Your task to perform on an android device: star an email in the gmail app Image 0: 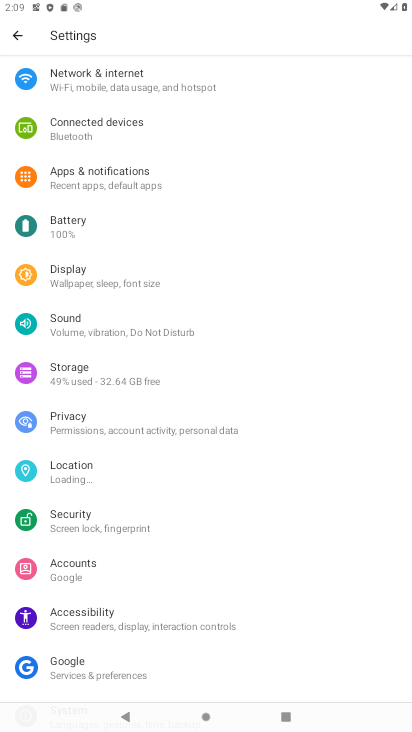
Step 0: press home button
Your task to perform on an android device: star an email in the gmail app Image 1: 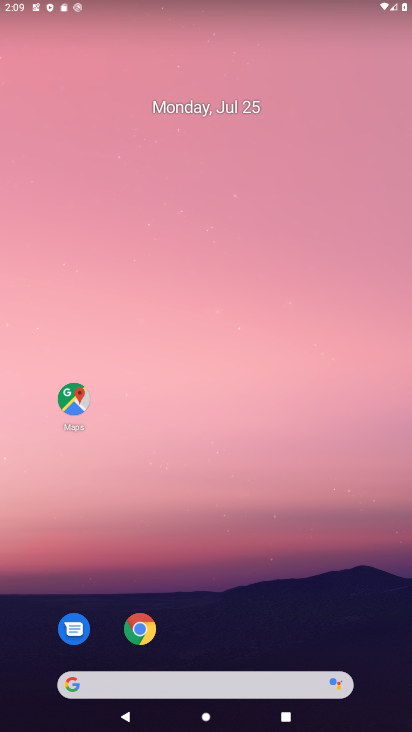
Step 1: drag from (70, 662) to (205, 201)
Your task to perform on an android device: star an email in the gmail app Image 2: 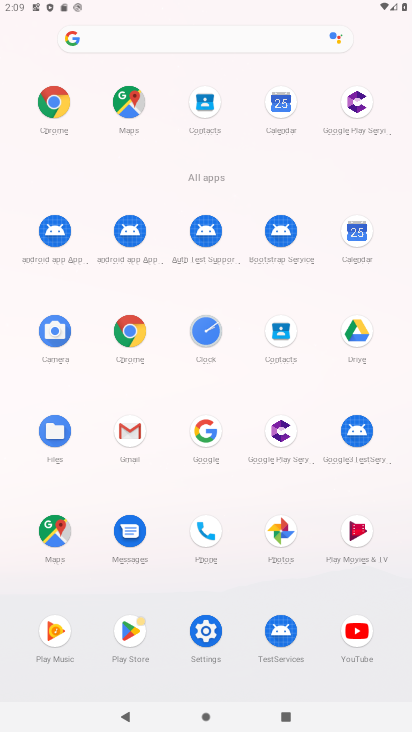
Step 2: click (126, 444)
Your task to perform on an android device: star an email in the gmail app Image 3: 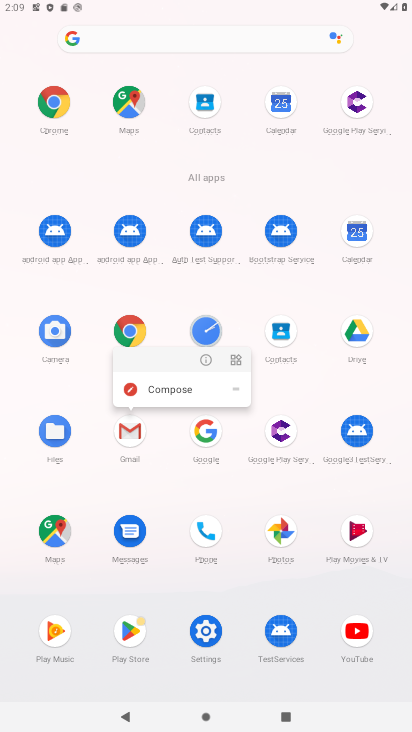
Step 3: click (131, 434)
Your task to perform on an android device: star an email in the gmail app Image 4: 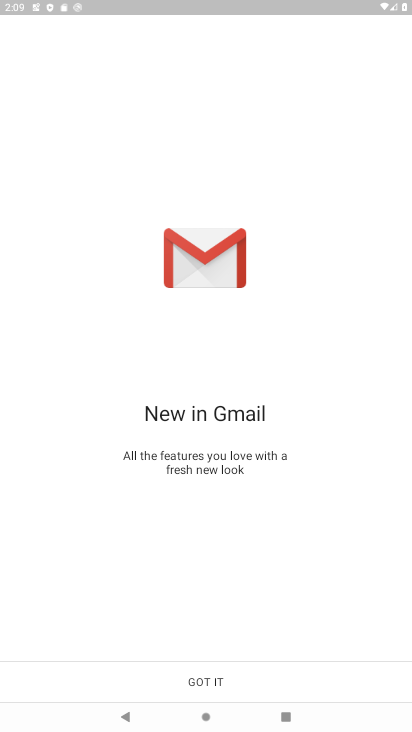
Step 4: click (200, 674)
Your task to perform on an android device: star an email in the gmail app Image 5: 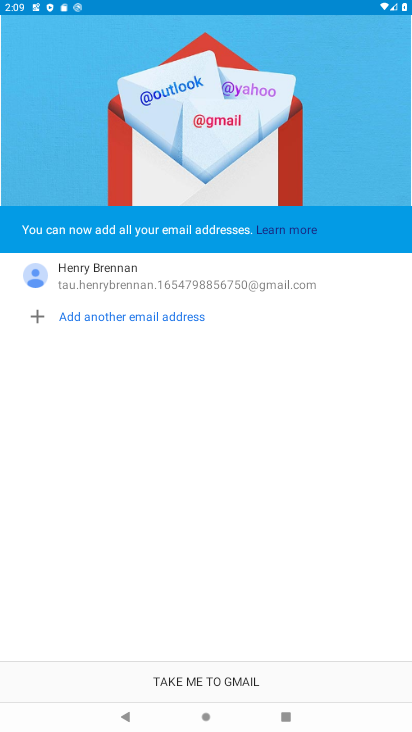
Step 5: click (208, 681)
Your task to perform on an android device: star an email in the gmail app Image 6: 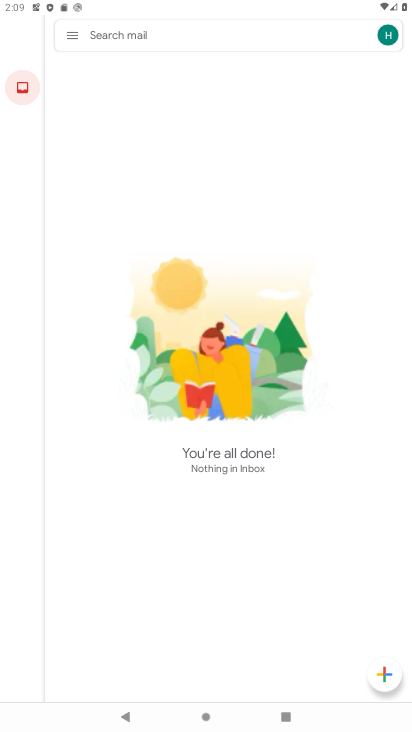
Step 6: click (66, 39)
Your task to perform on an android device: star an email in the gmail app Image 7: 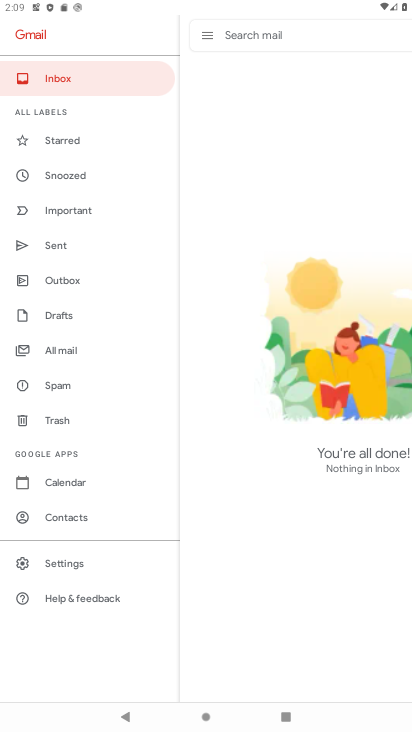
Step 7: click (75, 141)
Your task to perform on an android device: star an email in the gmail app Image 8: 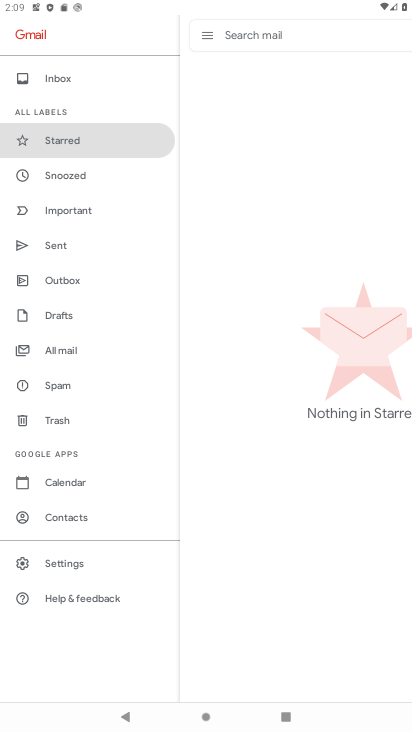
Step 8: task complete